Your task to perform on an android device: What's the weather going to be this weekend? Image 0: 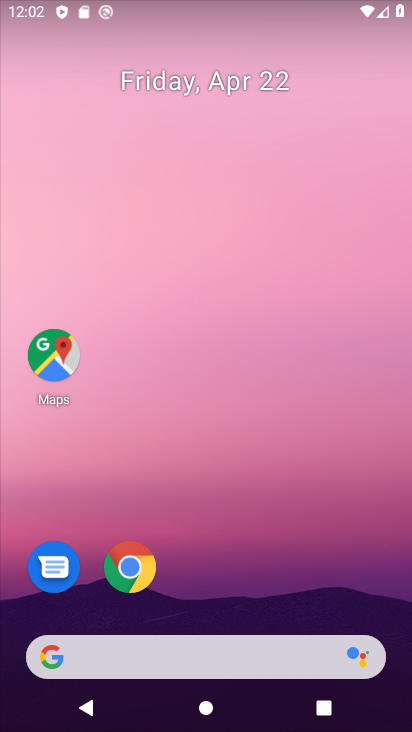
Step 0: drag from (259, 585) to (321, 101)
Your task to perform on an android device: What's the weather going to be this weekend? Image 1: 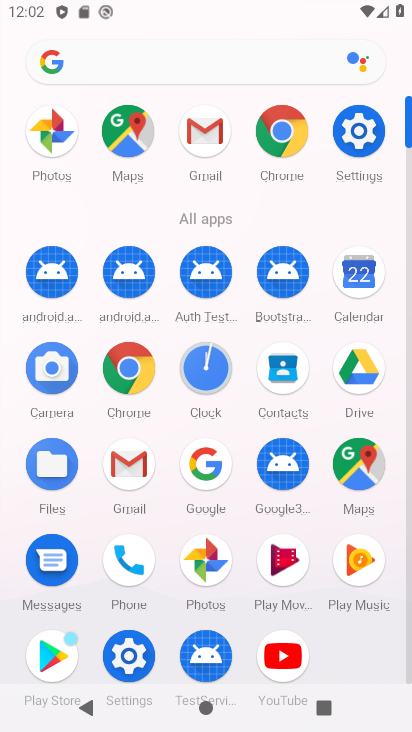
Step 1: click (134, 389)
Your task to perform on an android device: What's the weather going to be this weekend? Image 2: 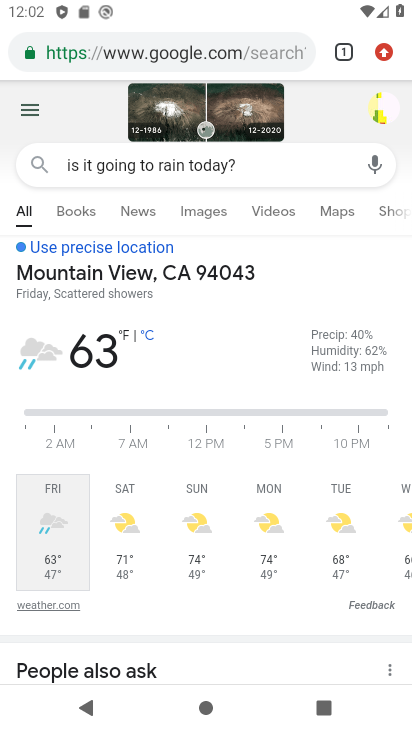
Step 2: click (160, 58)
Your task to perform on an android device: What's the weather going to be this weekend? Image 3: 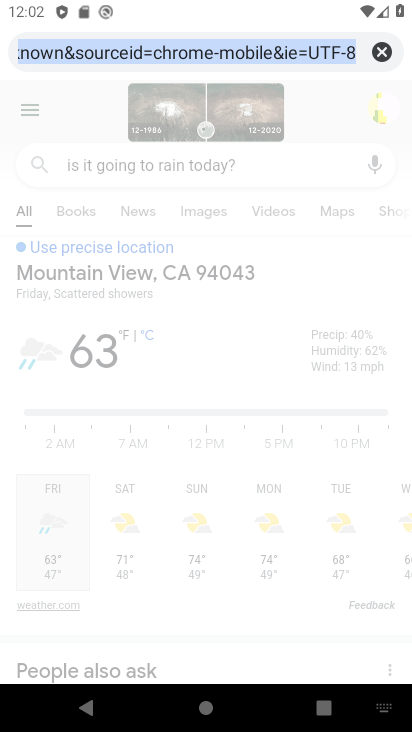
Step 3: type "whst's the weather going to be this weekend"
Your task to perform on an android device: What's the weather going to be this weekend? Image 4: 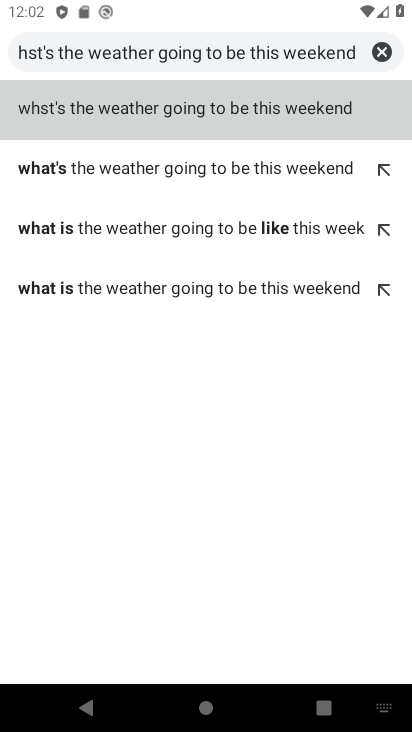
Step 4: click (276, 114)
Your task to perform on an android device: What's the weather going to be this weekend? Image 5: 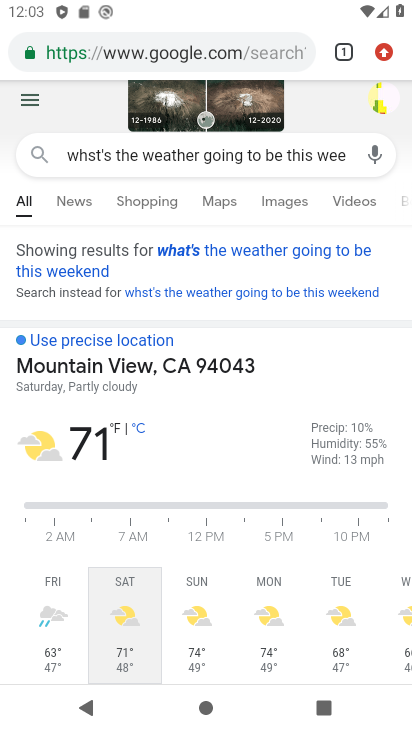
Step 5: task complete